Your task to perform on an android device: Clear the shopping cart on amazon. Image 0: 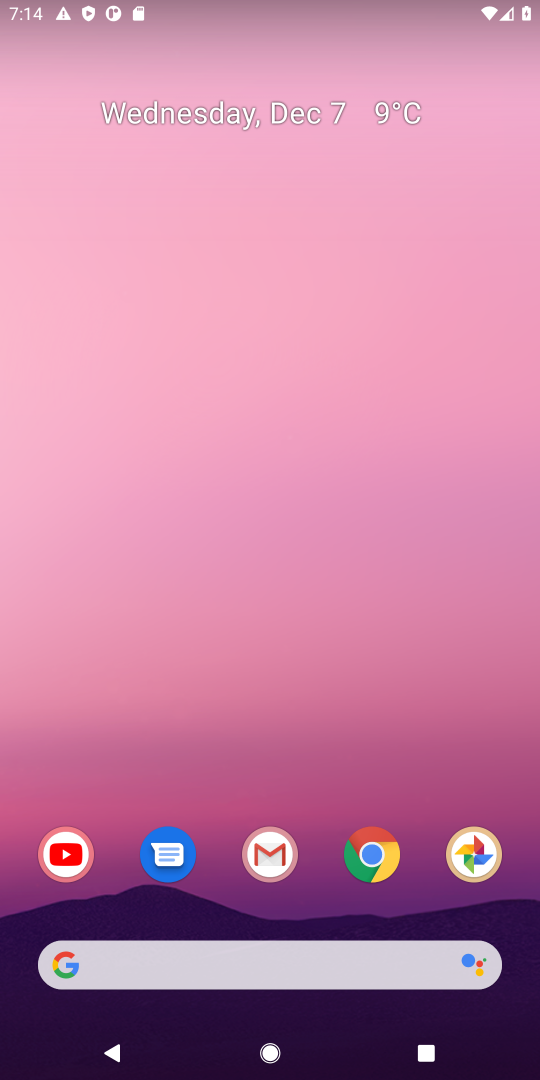
Step 0: click (276, 963)
Your task to perform on an android device: Clear the shopping cart on amazon. Image 1: 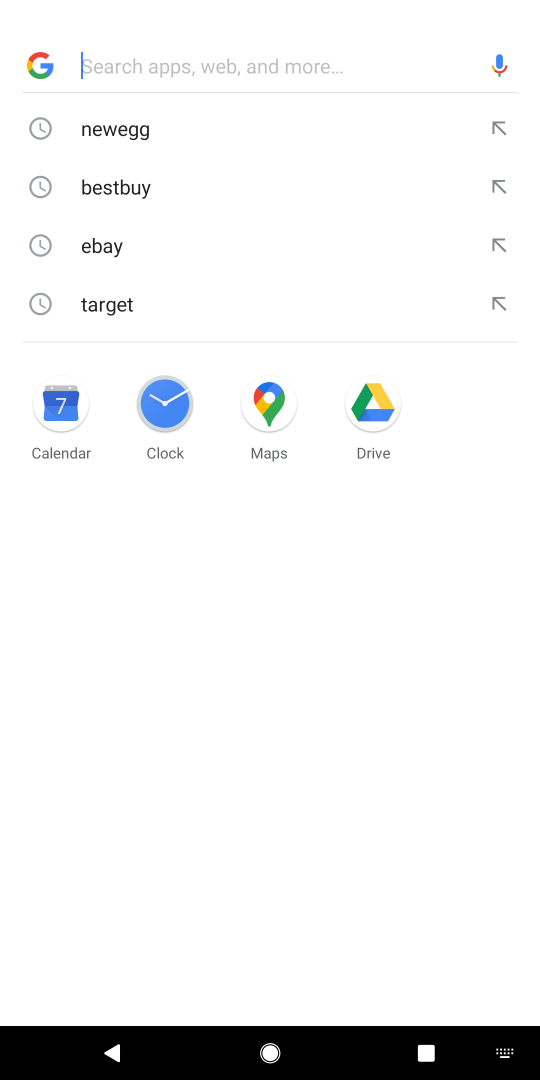
Step 1: type "amazon"
Your task to perform on an android device: Clear the shopping cart on amazon. Image 2: 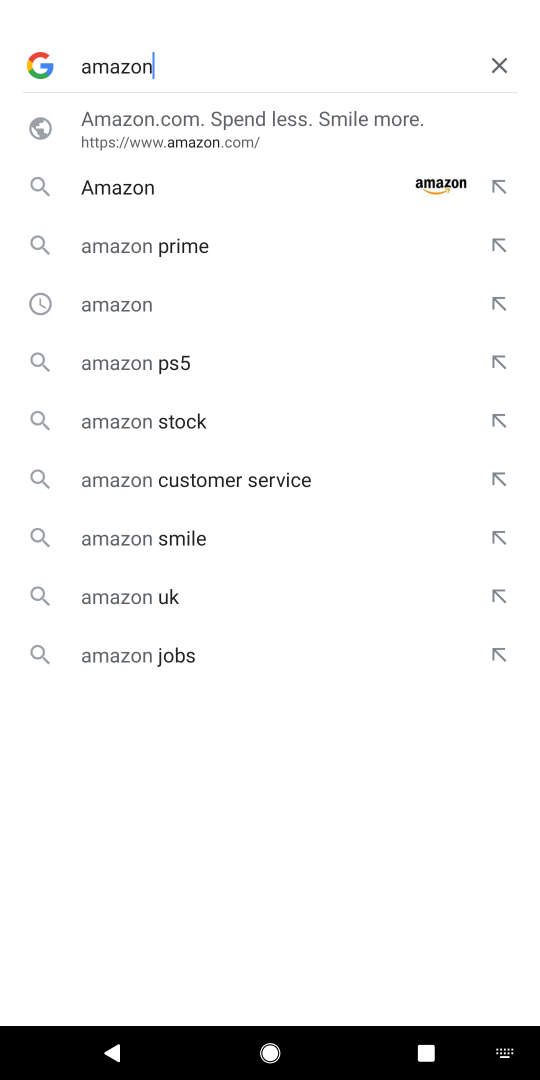
Step 2: click (120, 122)
Your task to perform on an android device: Clear the shopping cart on amazon. Image 3: 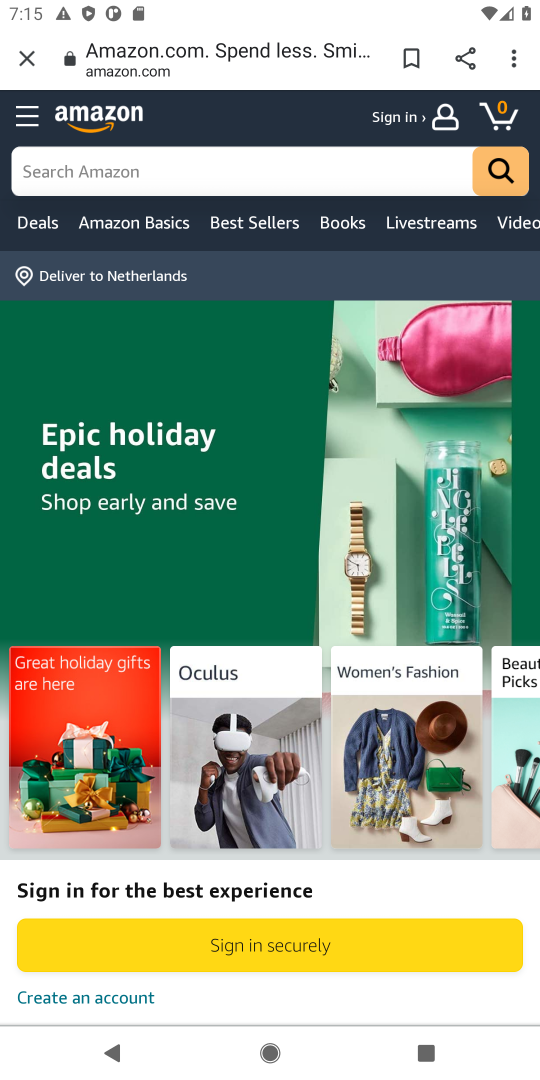
Step 3: click (153, 181)
Your task to perform on an android device: Clear the shopping cart on amazon. Image 4: 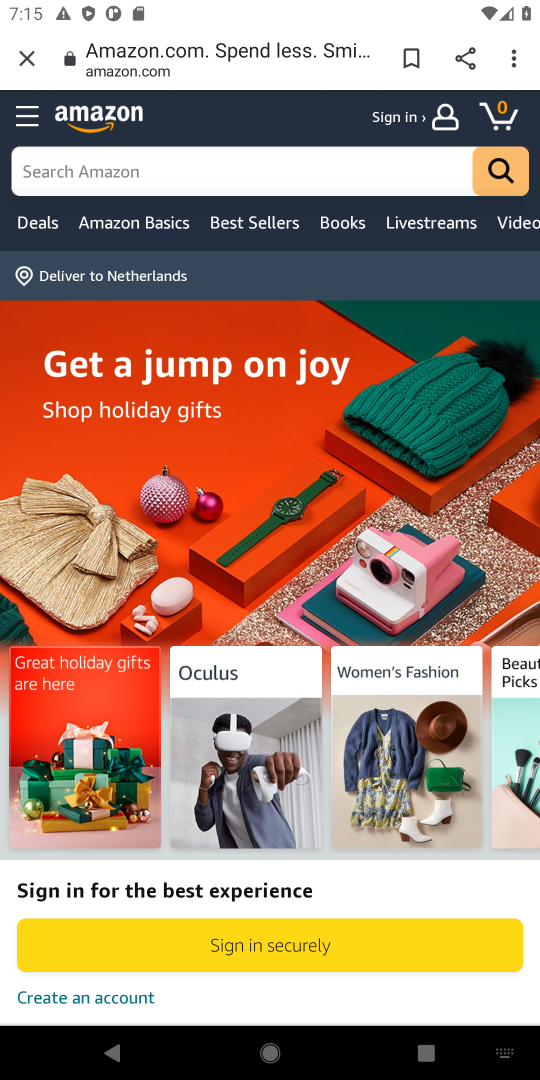
Step 4: click (507, 103)
Your task to perform on an android device: Clear the shopping cart on amazon. Image 5: 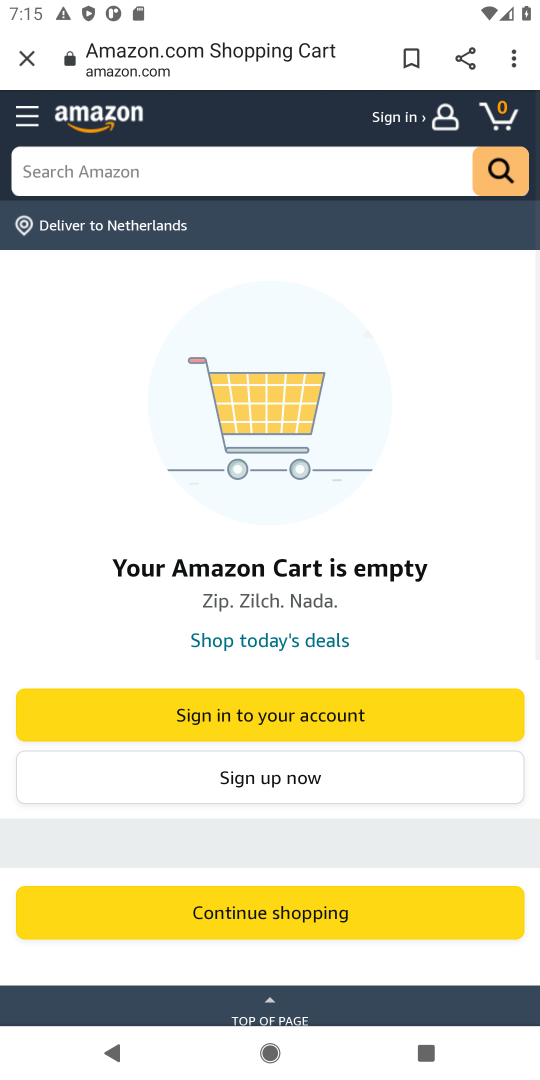
Step 5: task complete